Your task to perform on an android device: Go to internet settings Image 0: 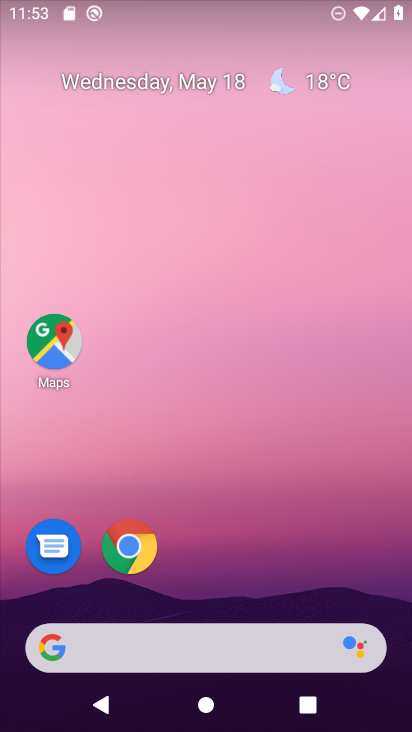
Step 0: drag from (222, 726) to (220, 180)
Your task to perform on an android device: Go to internet settings Image 1: 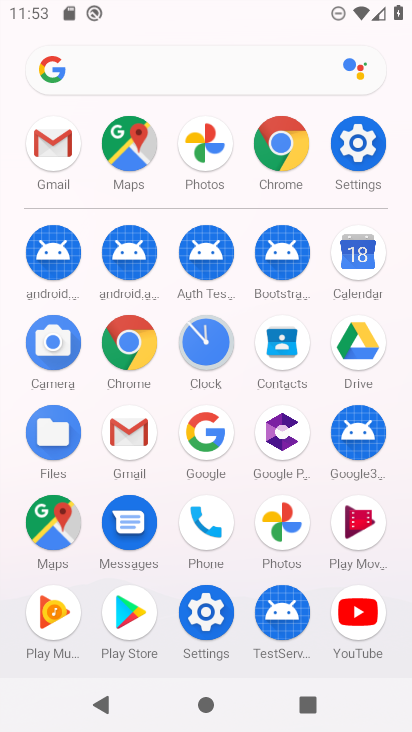
Step 1: click (365, 147)
Your task to perform on an android device: Go to internet settings Image 2: 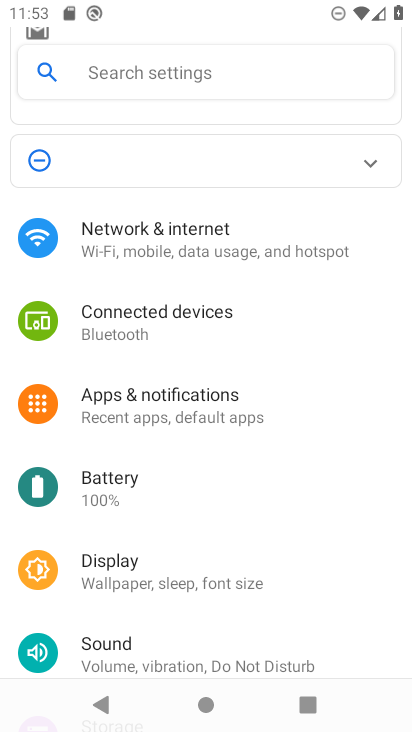
Step 2: click (190, 247)
Your task to perform on an android device: Go to internet settings Image 3: 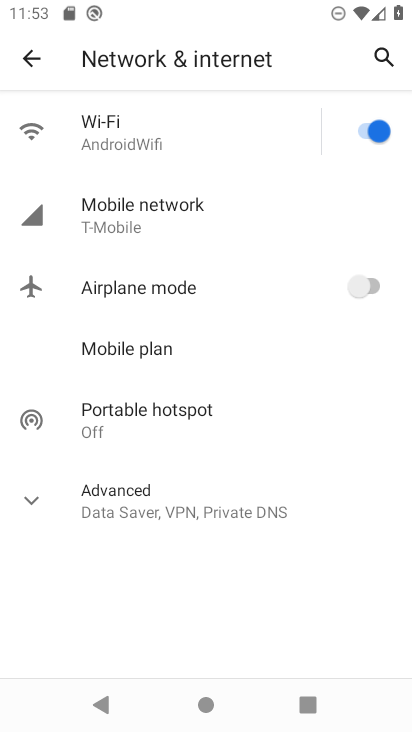
Step 3: task complete